Your task to perform on an android device: open app "YouTube Kids" (install if not already installed) and enter user name: "atmospheric@gmail.com" and password: "raze" Image 0: 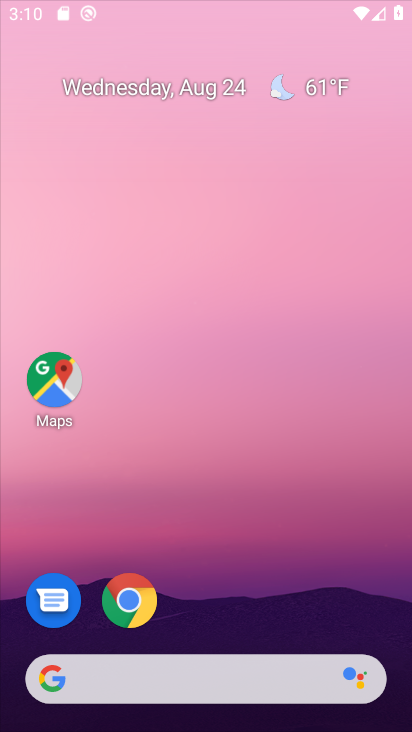
Step 0: drag from (293, 147) to (297, 48)
Your task to perform on an android device: open app "YouTube Kids" (install if not already installed) and enter user name: "atmospheric@gmail.com" and password: "raze" Image 1: 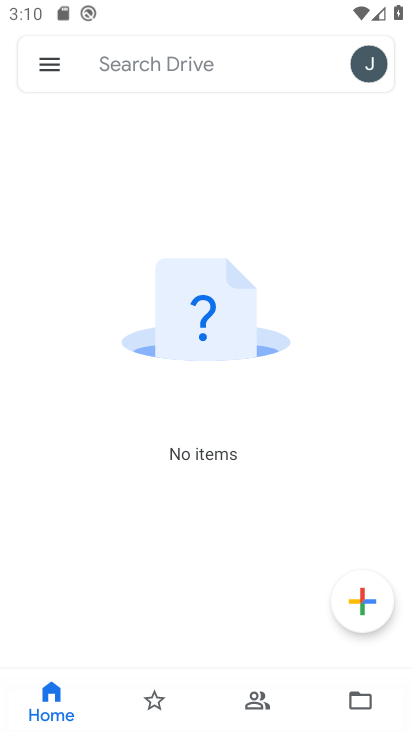
Step 1: press back button
Your task to perform on an android device: open app "YouTube Kids" (install if not already installed) and enter user name: "atmospheric@gmail.com" and password: "raze" Image 2: 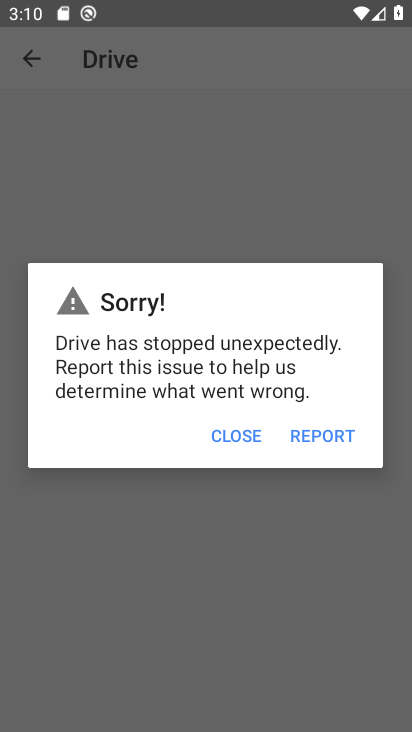
Step 2: press back button
Your task to perform on an android device: open app "YouTube Kids" (install if not already installed) and enter user name: "atmospheric@gmail.com" and password: "raze" Image 3: 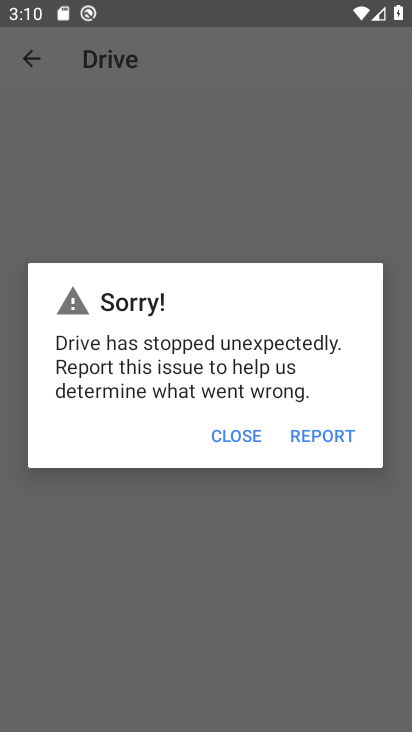
Step 3: press home button
Your task to perform on an android device: open app "YouTube Kids" (install if not already installed) and enter user name: "atmospheric@gmail.com" and password: "raze" Image 4: 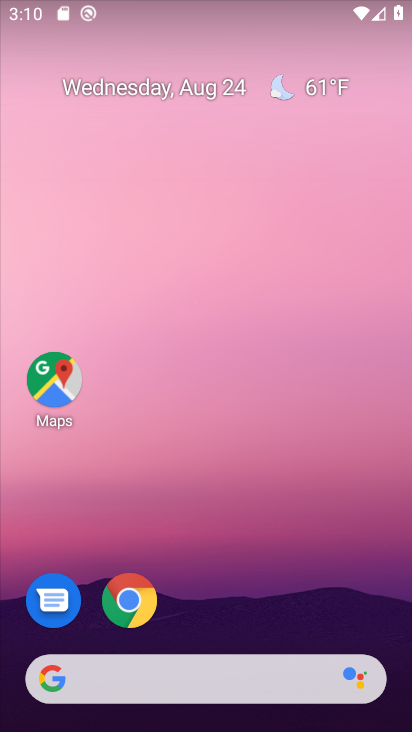
Step 4: drag from (267, 623) to (369, 35)
Your task to perform on an android device: open app "YouTube Kids" (install if not already installed) and enter user name: "atmospheric@gmail.com" and password: "raze" Image 5: 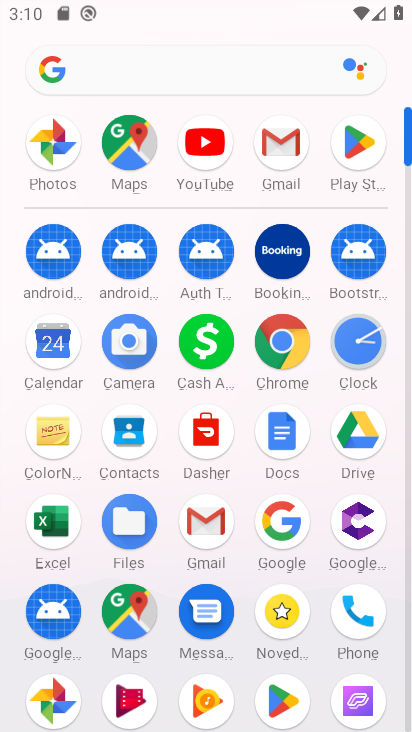
Step 5: click (355, 149)
Your task to perform on an android device: open app "YouTube Kids" (install if not already installed) and enter user name: "atmospheric@gmail.com" and password: "raze" Image 6: 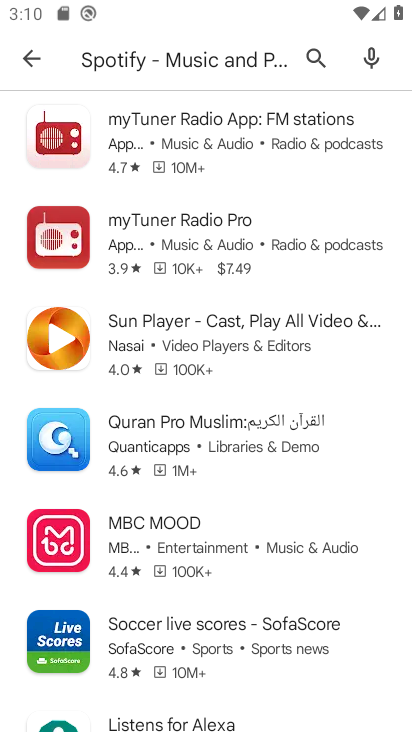
Step 6: click (328, 54)
Your task to perform on an android device: open app "YouTube Kids" (install if not already installed) and enter user name: "atmospheric@gmail.com" and password: "raze" Image 7: 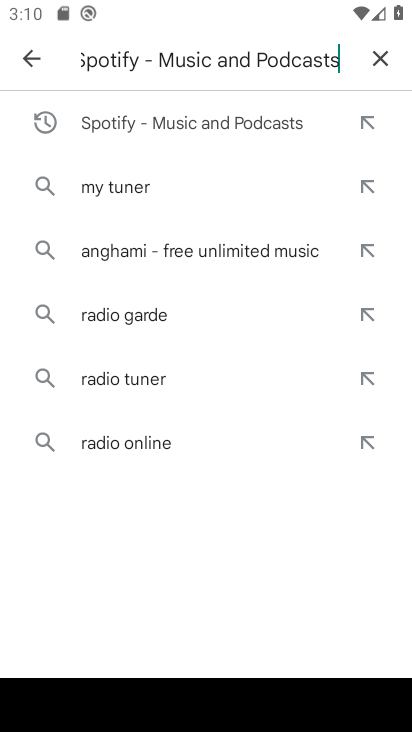
Step 7: click (381, 58)
Your task to perform on an android device: open app "YouTube Kids" (install if not already installed) and enter user name: "atmospheric@gmail.com" and password: "raze" Image 8: 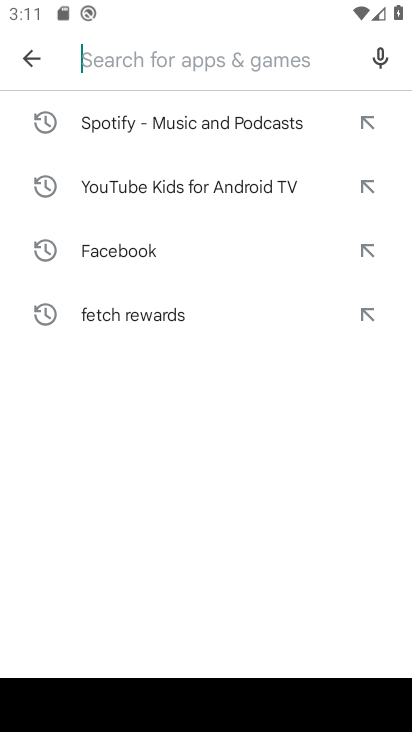
Step 8: type "YouTube Kids"
Your task to perform on an android device: open app "YouTube Kids" (install if not already installed) and enter user name: "atmospheric@gmail.com" and password: "raze" Image 9: 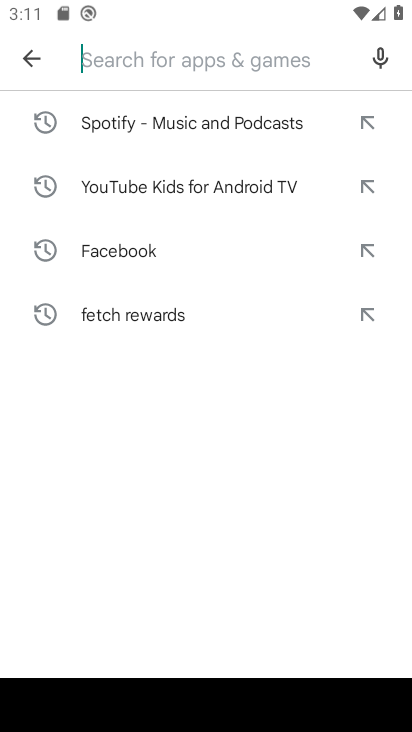
Step 9: click (276, 548)
Your task to perform on an android device: open app "YouTube Kids" (install if not already installed) and enter user name: "atmospheric@gmail.com" and password: "raze" Image 10: 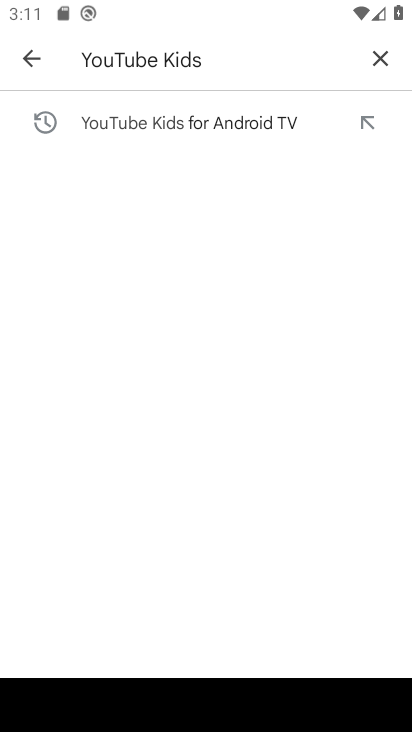
Step 10: click (159, 121)
Your task to perform on an android device: open app "YouTube Kids" (install if not already installed) and enter user name: "atmospheric@gmail.com" and password: "raze" Image 11: 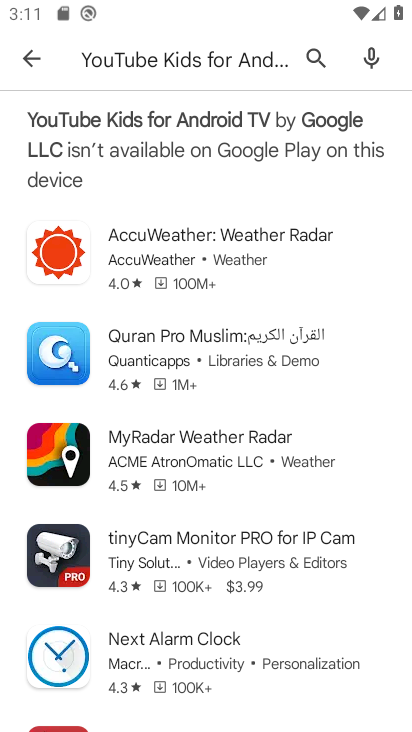
Step 11: task complete